Your task to perform on an android device: Go to CNN.com Image 0: 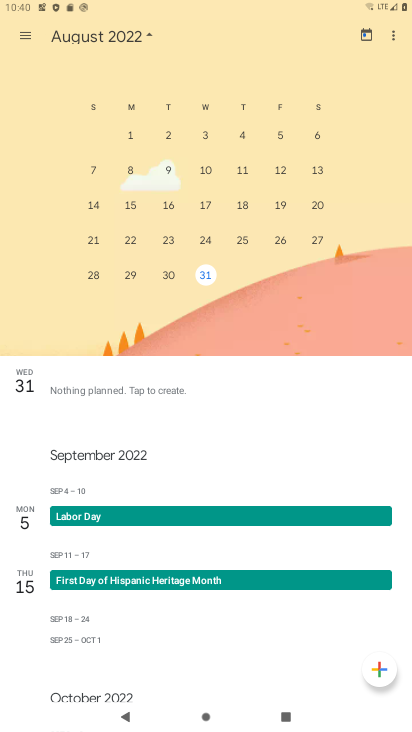
Step 0: press home button
Your task to perform on an android device: Go to CNN.com Image 1: 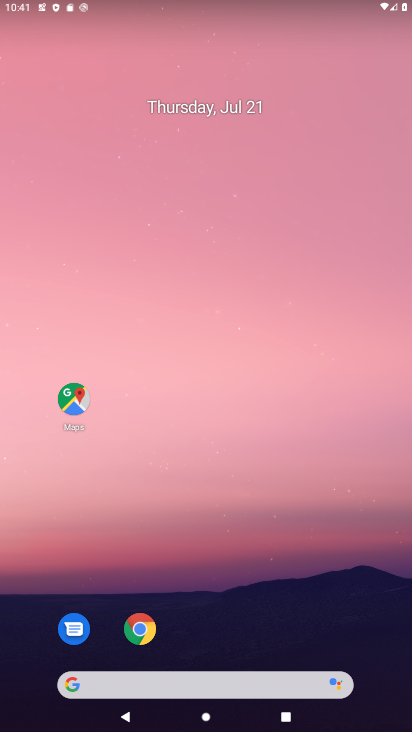
Step 1: click (78, 681)
Your task to perform on an android device: Go to CNN.com Image 2: 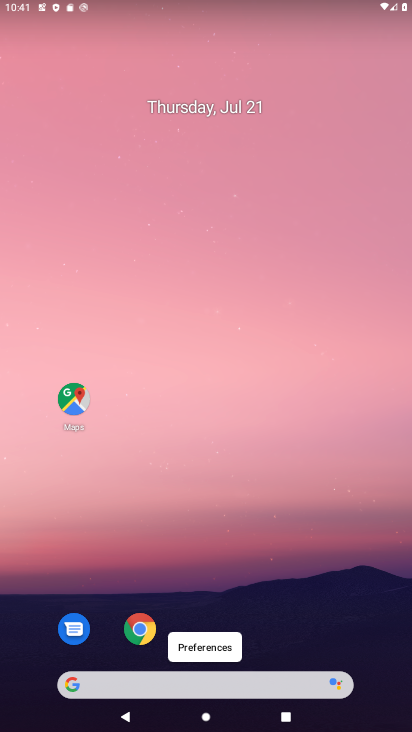
Step 2: click (75, 681)
Your task to perform on an android device: Go to CNN.com Image 3: 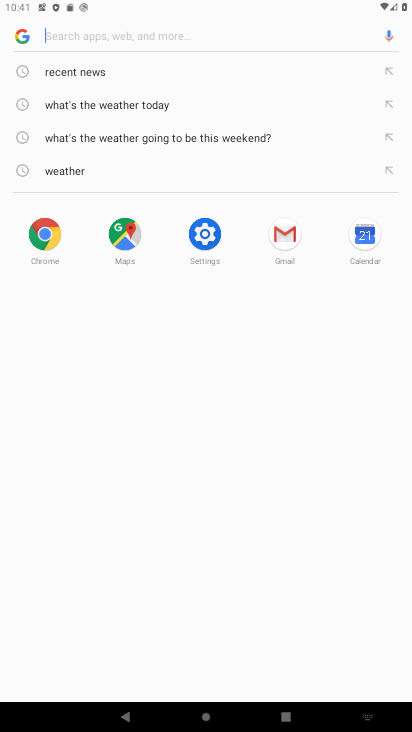
Step 3: type "CNN.com"
Your task to perform on an android device: Go to CNN.com Image 4: 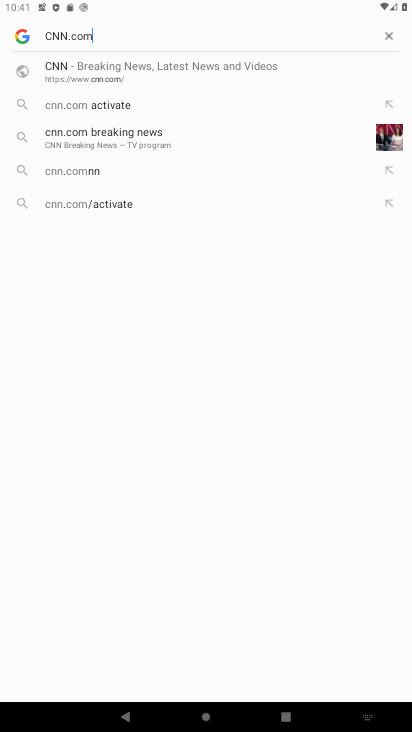
Step 4: press enter
Your task to perform on an android device: Go to CNN.com Image 5: 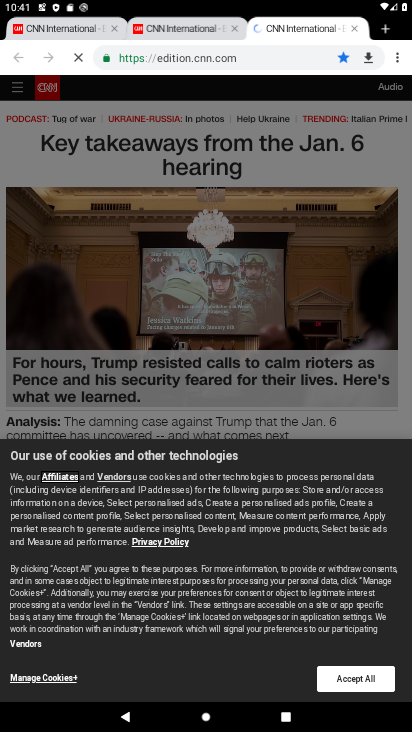
Step 5: task complete